Your task to perform on an android device: Go to network settings Image 0: 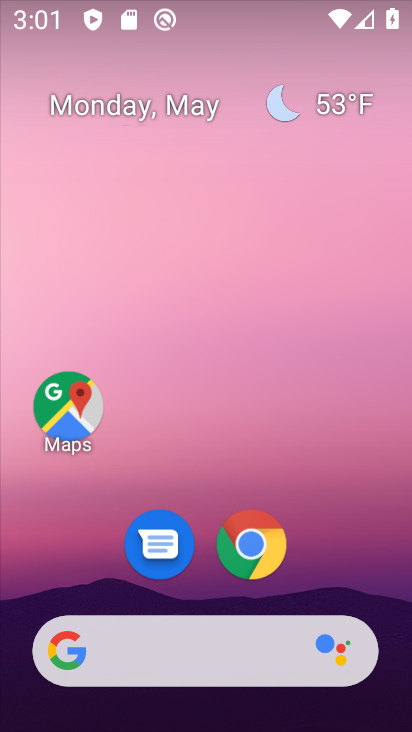
Step 0: drag from (143, 720) to (189, 79)
Your task to perform on an android device: Go to network settings Image 1: 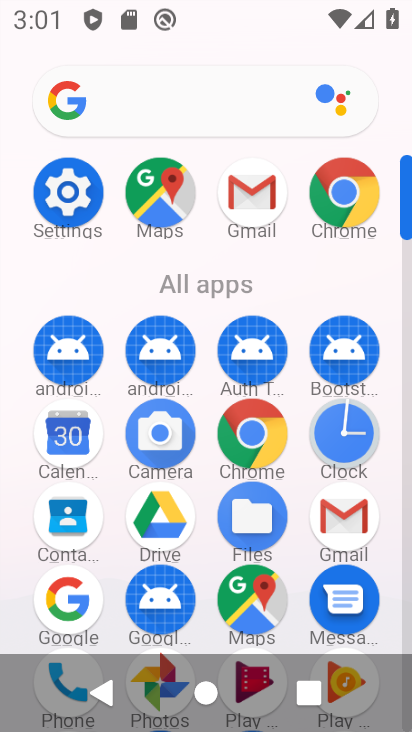
Step 1: click (59, 206)
Your task to perform on an android device: Go to network settings Image 2: 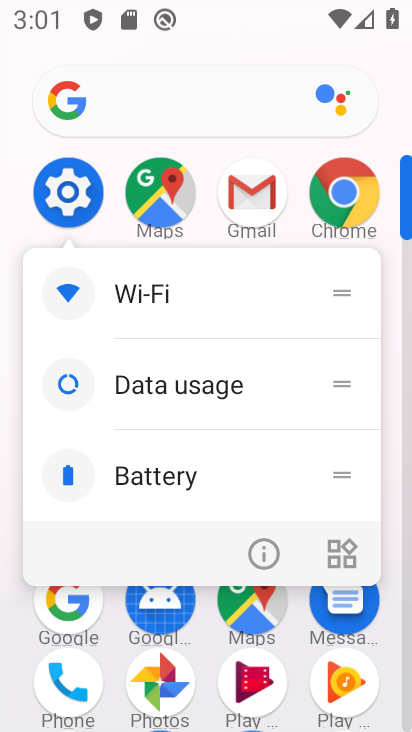
Step 2: click (53, 177)
Your task to perform on an android device: Go to network settings Image 3: 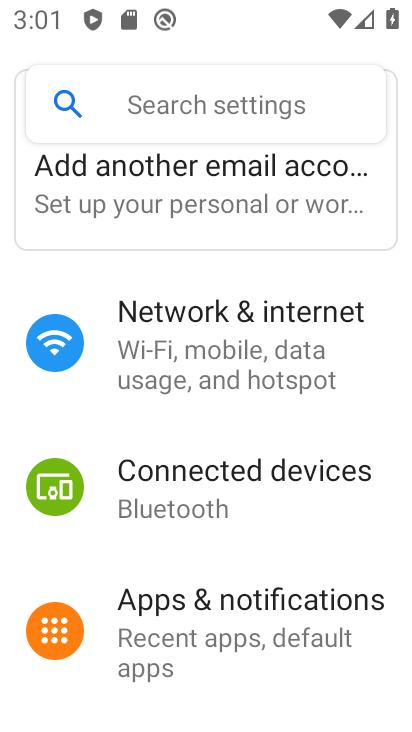
Step 3: click (264, 359)
Your task to perform on an android device: Go to network settings Image 4: 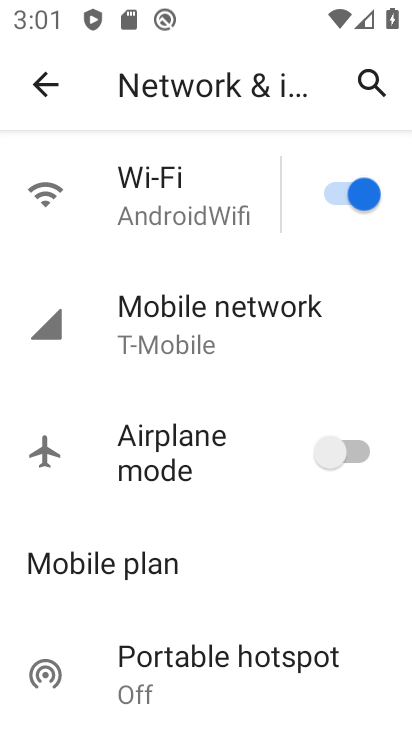
Step 4: drag from (230, 566) to (289, 281)
Your task to perform on an android device: Go to network settings Image 5: 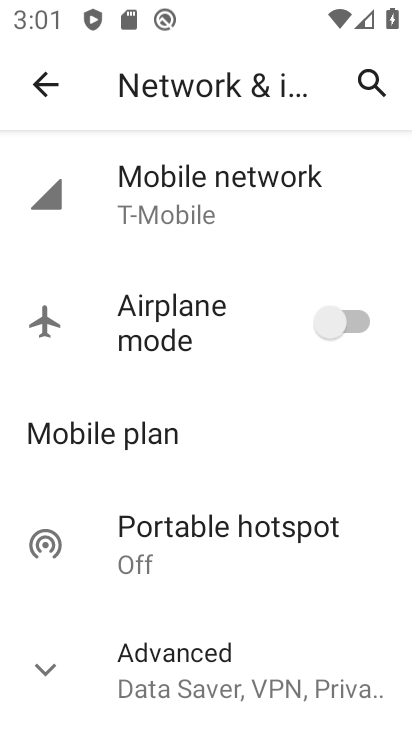
Step 5: click (199, 203)
Your task to perform on an android device: Go to network settings Image 6: 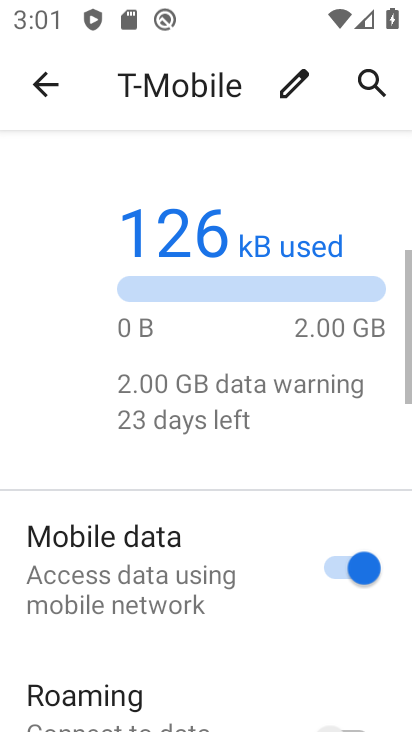
Step 6: drag from (198, 663) to (221, 235)
Your task to perform on an android device: Go to network settings Image 7: 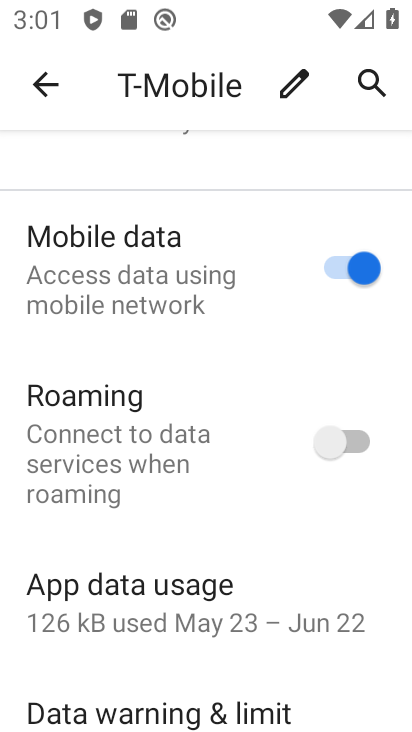
Step 7: drag from (190, 662) to (219, 222)
Your task to perform on an android device: Go to network settings Image 8: 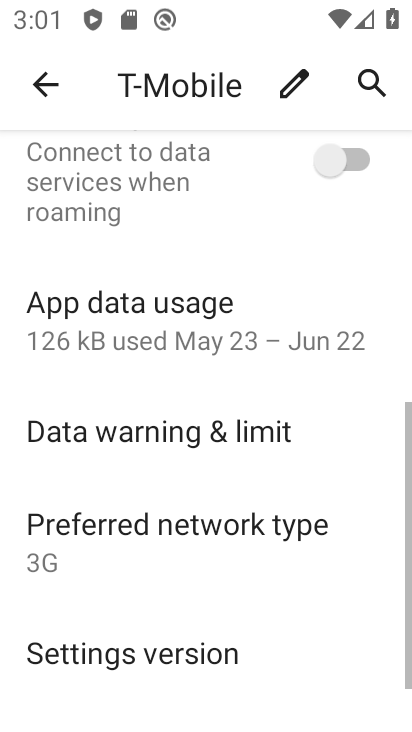
Step 8: drag from (166, 667) to (183, 305)
Your task to perform on an android device: Go to network settings Image 9: 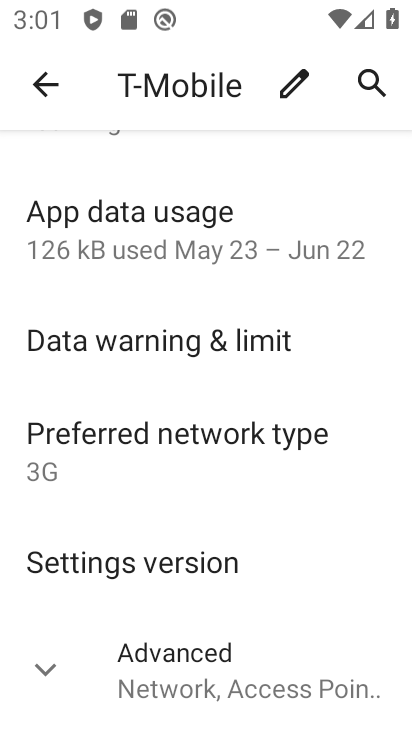
Step 9: click (145, 684)
Your task to perform on an android device: Go to network settings Image 10: 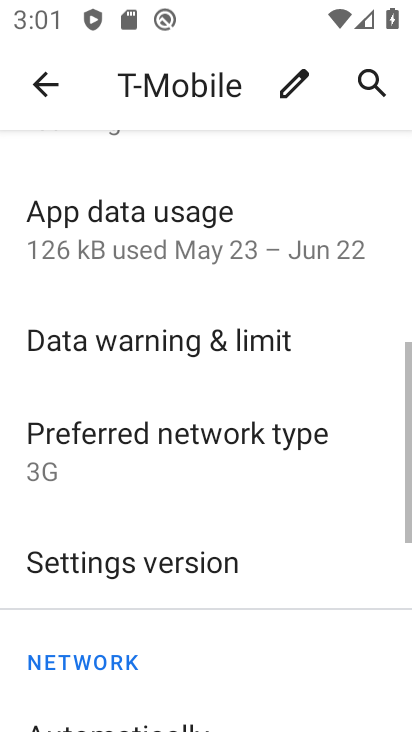
Step 10: task complete